Your task to perform on an android device: delete browsing data in the chrome app Image 0: 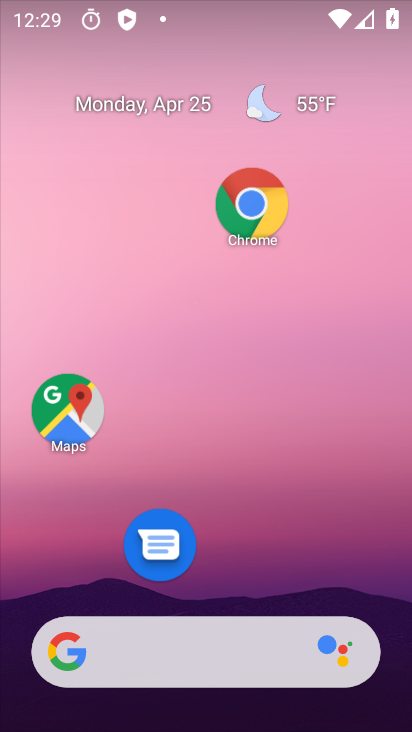
Step 0: drag from (256, 690) to (287, 169)
Your task to perform on an android device: delete browsing data in the chrome app Image 1: 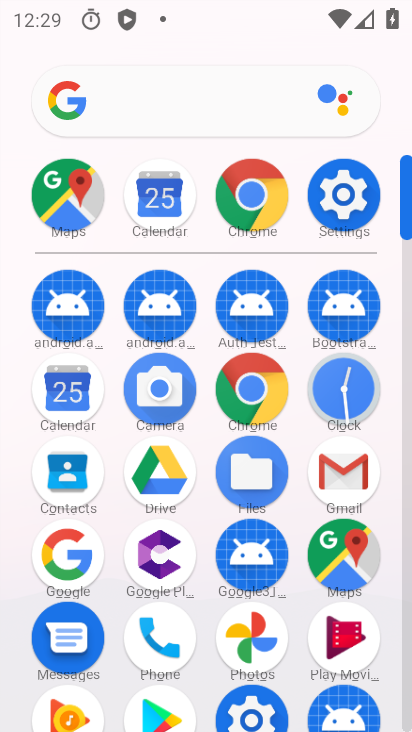
Step 1: click (262, 193)
Your task to perform on an android device: delete browsing data in the chrome app Image 2: 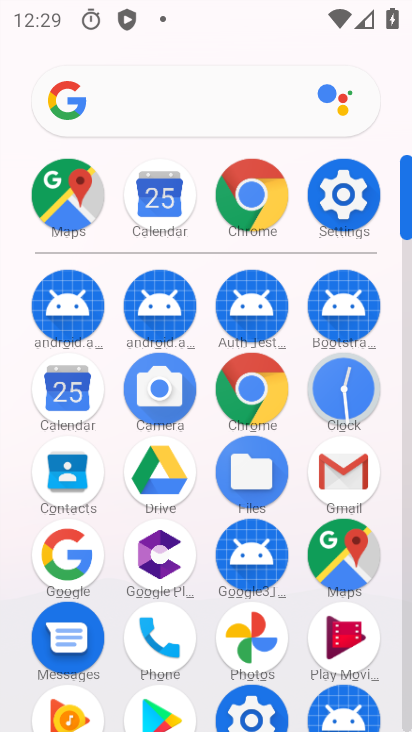
Step 2: click (252, 204)
Your task to perform on an android device: delete browsing data in the chrome app Image 3: 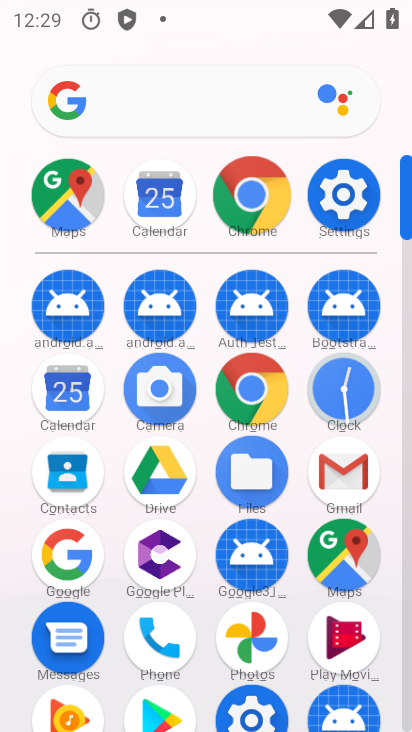
Step 3: click (249, 201)
Your task to perform on an android device: delete browsing data in the chrome app Image 4: 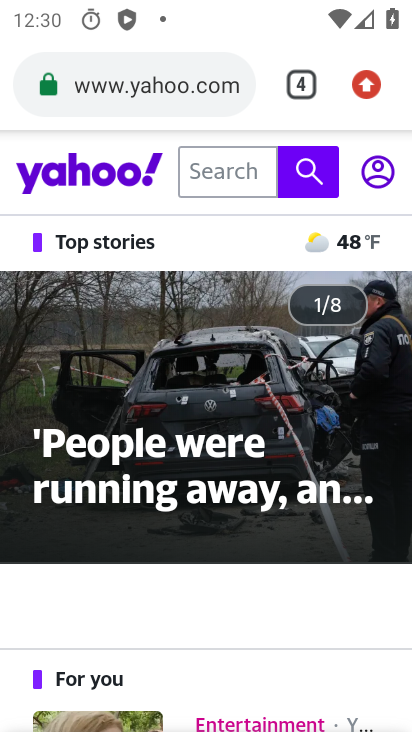
Step 4: click (364, 87)
Your task to perform on an android device: delete browsing data in the chrome app Image 5: 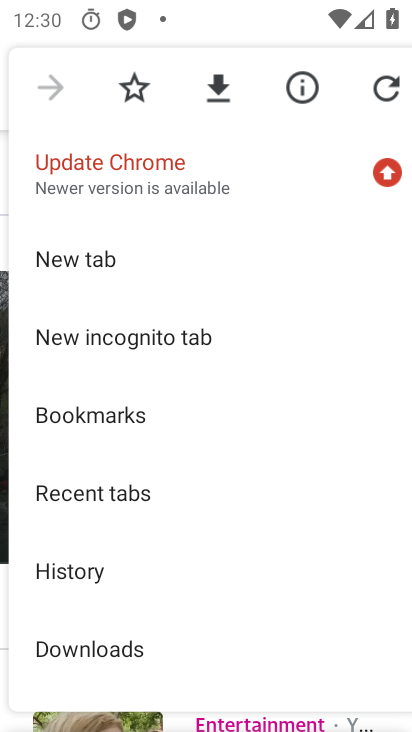
Step 5: click (86, 566)
Your task to perform on an android device: delete browsing data in the chrome app Image 6: 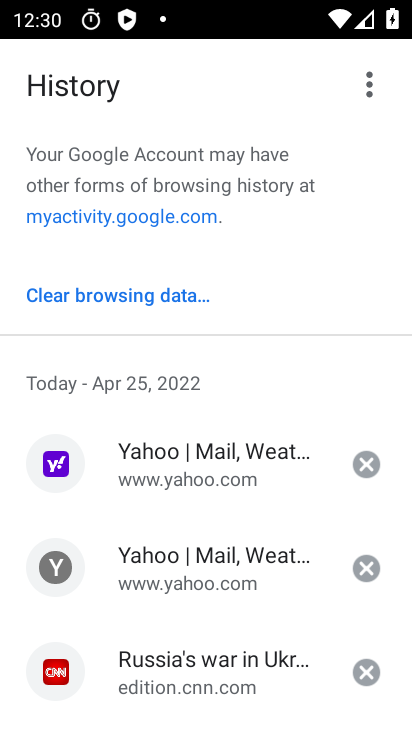
Step 6: click (97, 299)
Your task to perform on an android device: delete browsing data in the chrome app Image 7: 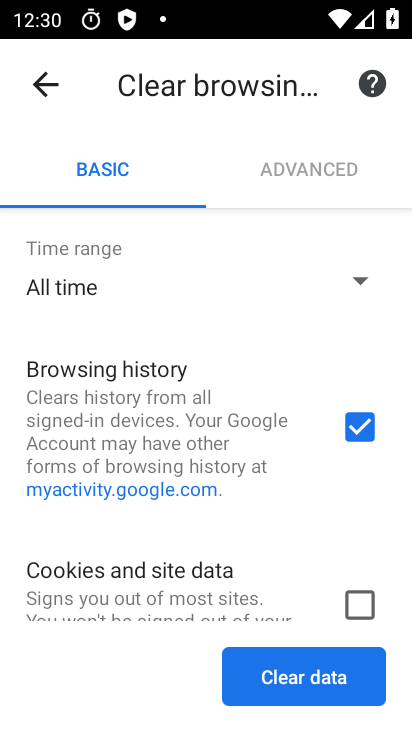
Step 7: click (305, 670)
Your task to perform on an android device: delete browsing data in the chrome app Image 8: 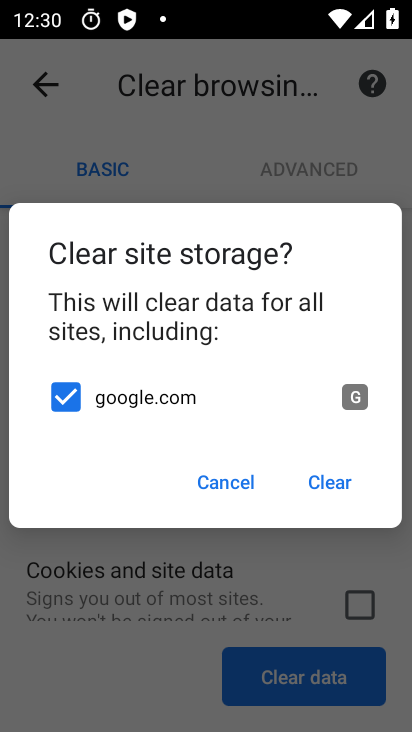
Step 8: task complete